Your task to perform on an android device: Check the news Image 0: 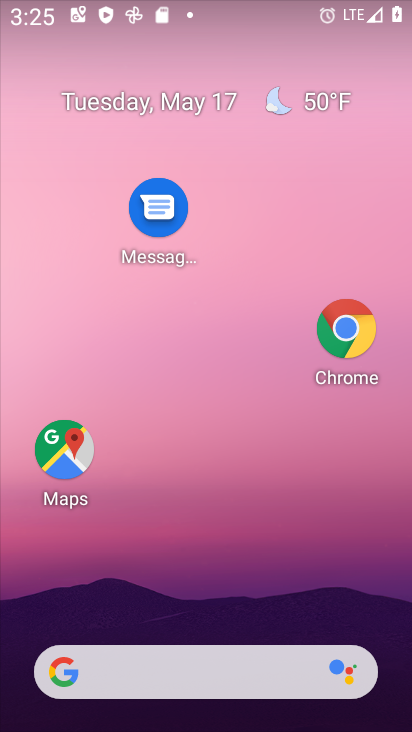
Step 0: click (231, 675)
Your task to perform on an android device: Check the news Image 1: 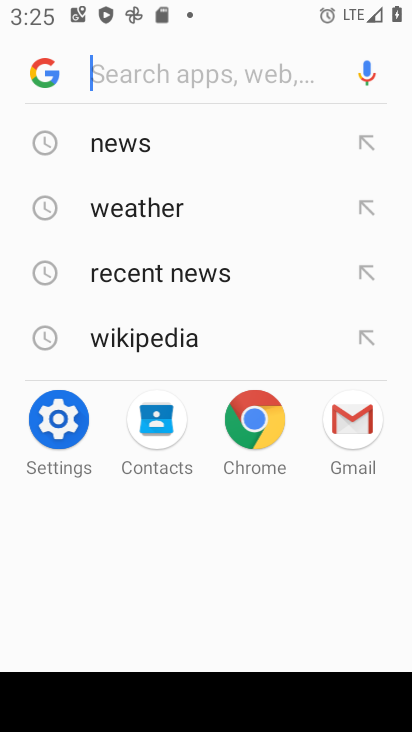
Step 1: click (167, 159)
Your task to perform on an android device: Check the news Image 2: 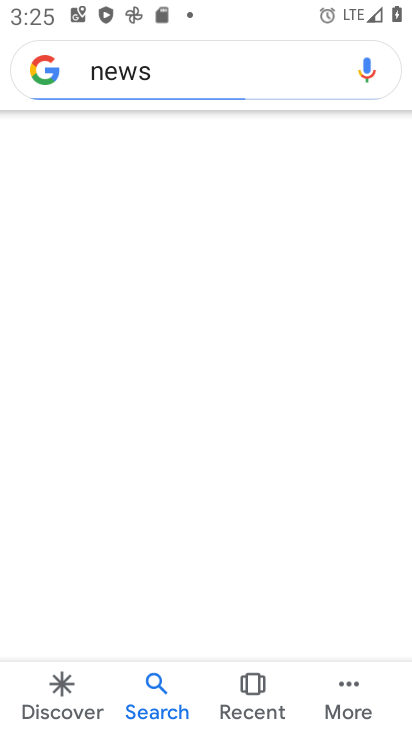
Step 2: task complete